Your task to perform on an android device: turn on priority inbox in the gmail app Image 0: 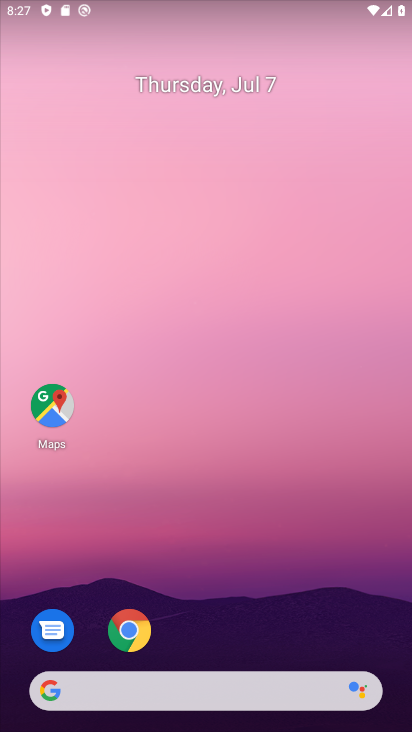
Step 0: drag from (194, 631) to (203, 241)
Your task to perform on an android device: turn on priority inbox in the gmail app Image 1: 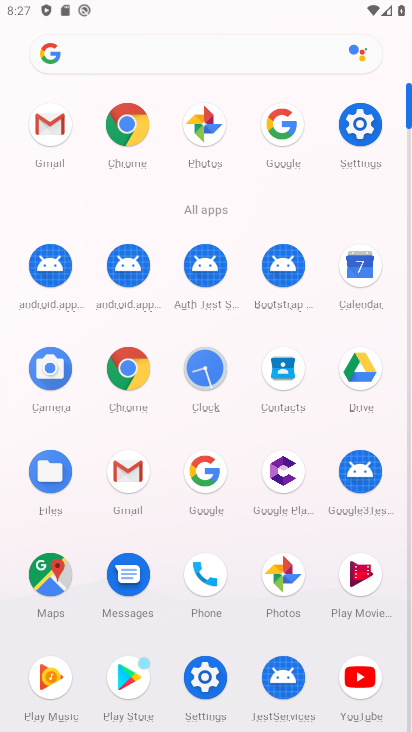
Step 1: click (57, 144)
Your task to perform on an android device: turn on priority inbox in the gmail app Image 2: 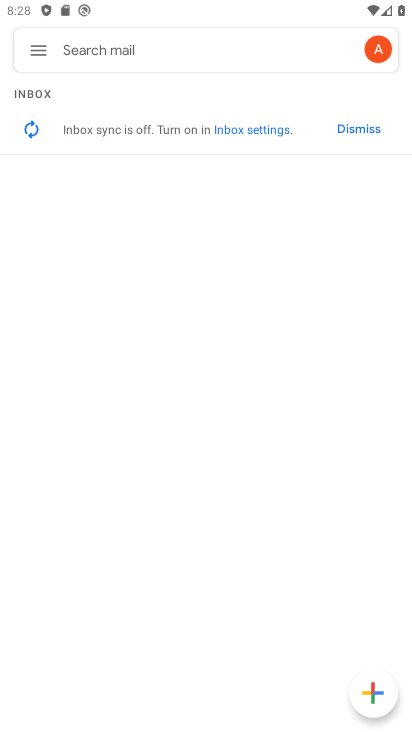
Step 2: click (47, 47)
Your task to perform on an android device: turn on priority inbox in the gmail app Image 3: 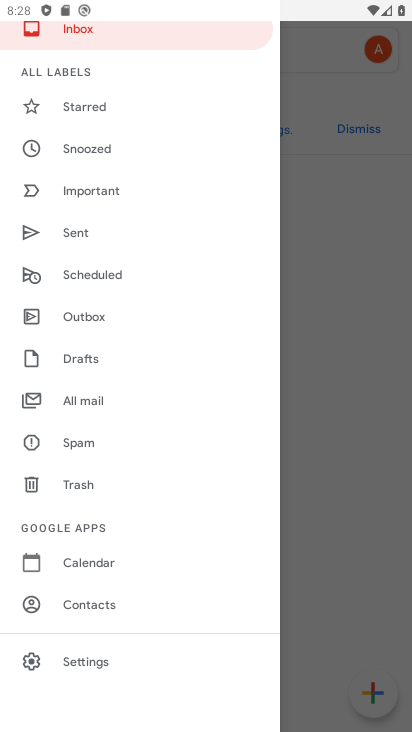
Step 3: click (75, 661)
Your task to perform on an android device: turn on priority inbox in the gmail app Image 4: 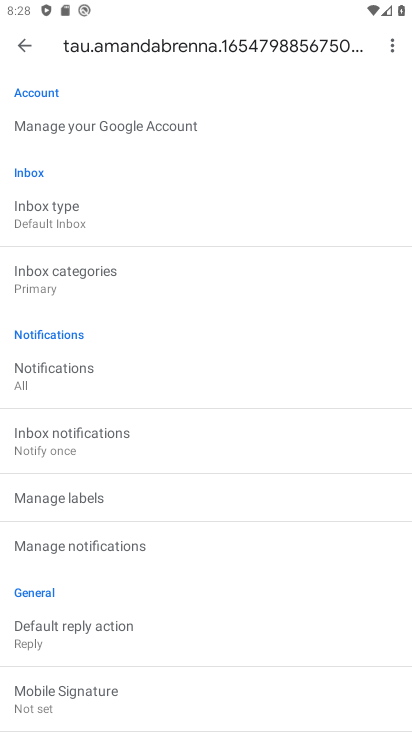
Step 4: click (140, 218)
Your task to perform on an android device: turn on priority inbox in the gmail app Image 5: 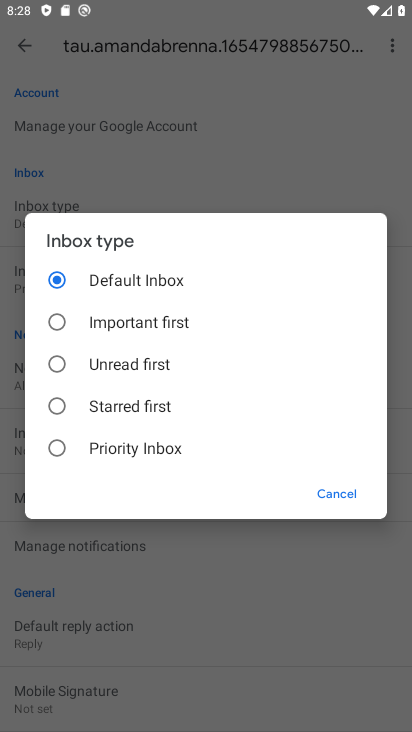
Step 5: click (126, 459)
Your task to perform on an android device: turn on priority inbox in the gmail app Image 6: 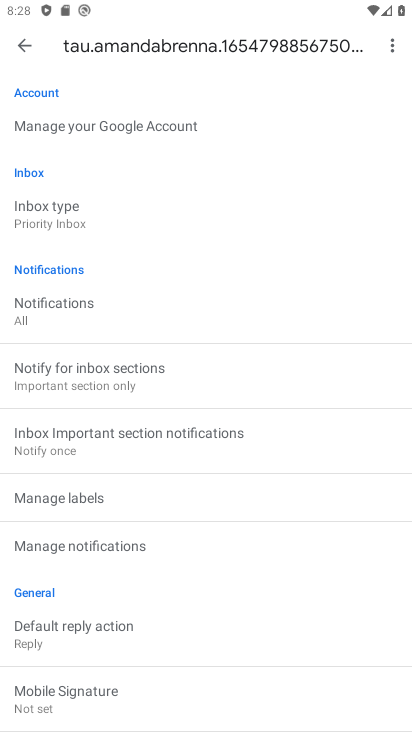
Step 6: task complete